Your task to perform on an android device: Search for Italian restaurants on Maps Image 0: 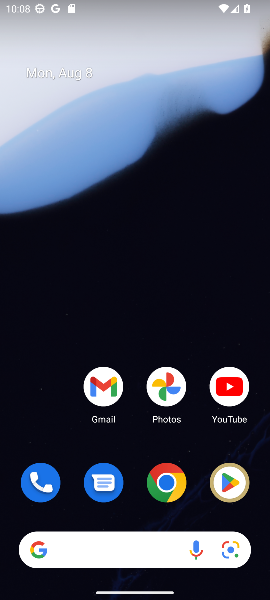
Step 0: drag from (171, 435) to (269, 2)
Your task to perform on an android device: Search for Italian restaurants on Maps Image 1: 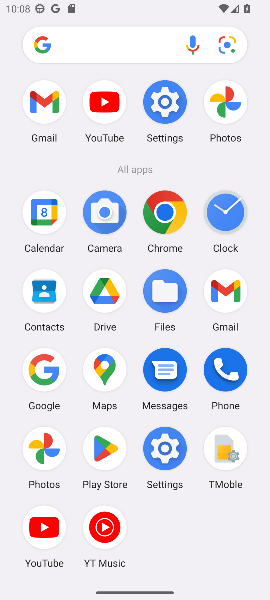
Step 1: click (106, 357)
Your task to perform on an android device: Search for Italian restaurants on Maps Image 2: 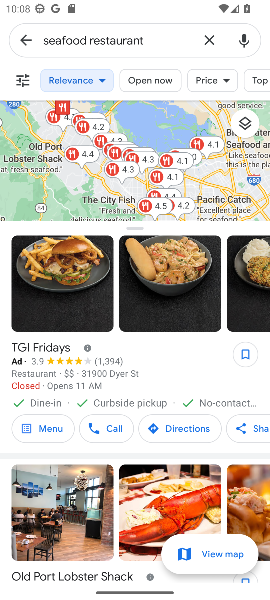
Step 2: click (212, 40)
Your task to perform on an android device: Search for Italian restaurants on Maps Image 3: 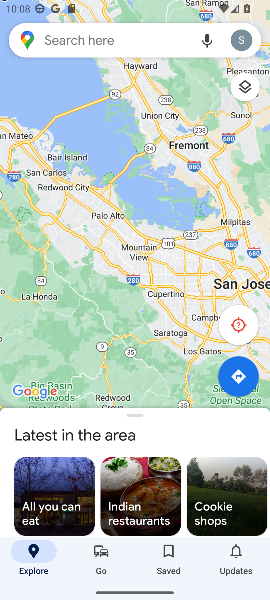
Step 3: click (106, 40)
Your task to perform on an android device: Search for Italian restaurants on Maps Image 4: 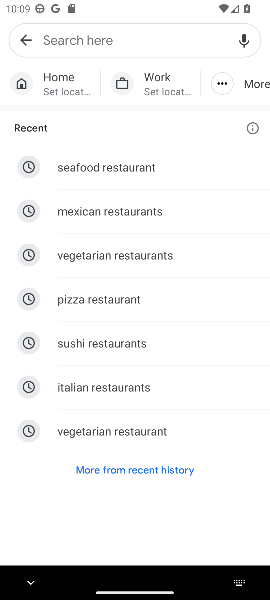
Step 4: type "italian restaurants"
Your task to perform on an android device: Search for Italian restaurants on Maps Image 5: 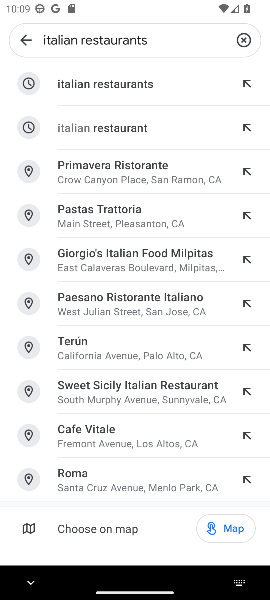
Step 5: click (171, 84)
Your task to perform on an android device: Search for Italian restaurants on Maps Image 6: 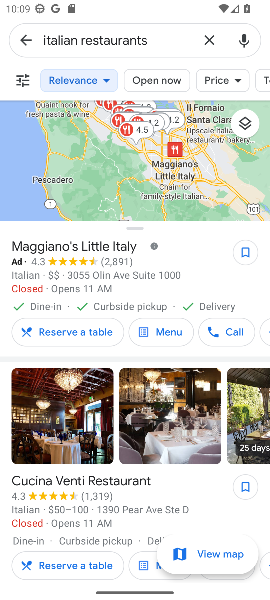
Step 6: task complete